Your task to perform on an android device: toggle location history Image 0: 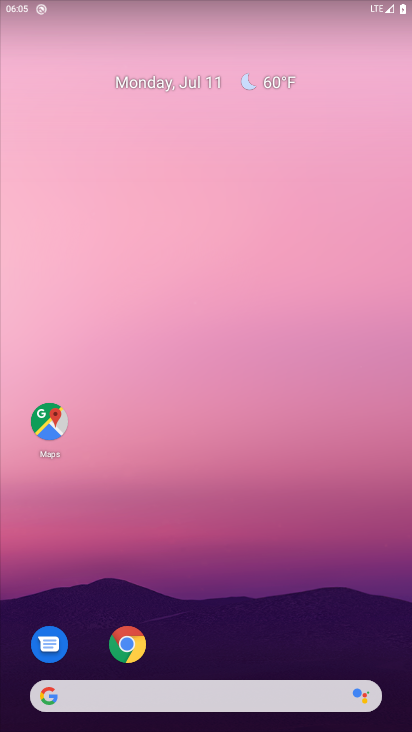
Step 0: drag from (203, 698) to (169, 343)
Your task to perform on an android device: toggle location history Image 1: 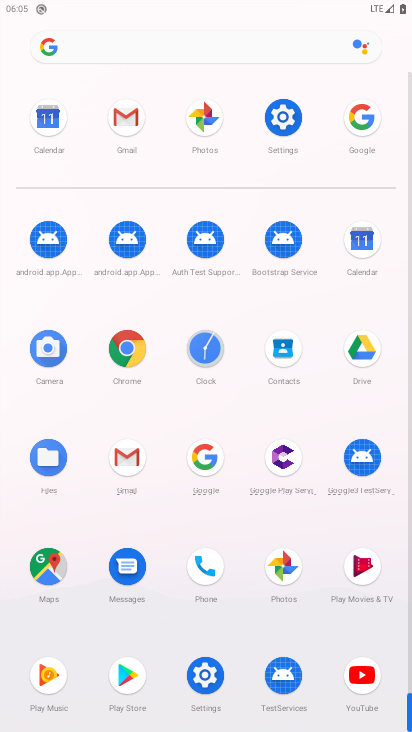
Step 1: click (275, 116)
Your task to perform on an android device: toggle location history Image 2: 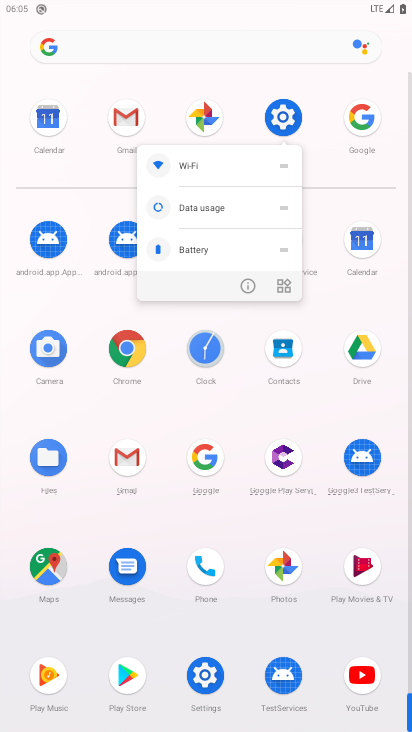
Step 2: click (278, 126)
Your task to perform on an android device: toggle location history Image 3: 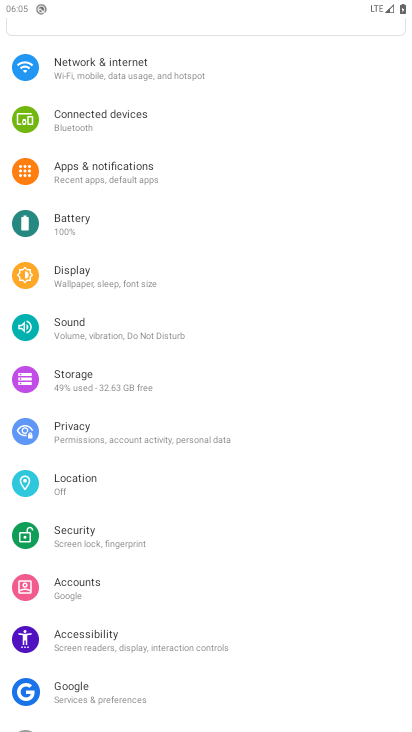
Step 3: click (71, 484)
Your task to perform on an android device: toggle location history Image 4: 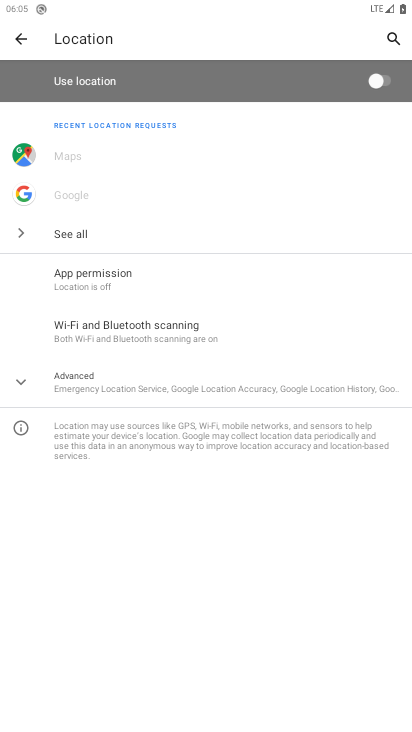
Step 4: click (63, 377)
Your task to perform on an android device: toggle location history Image 5: 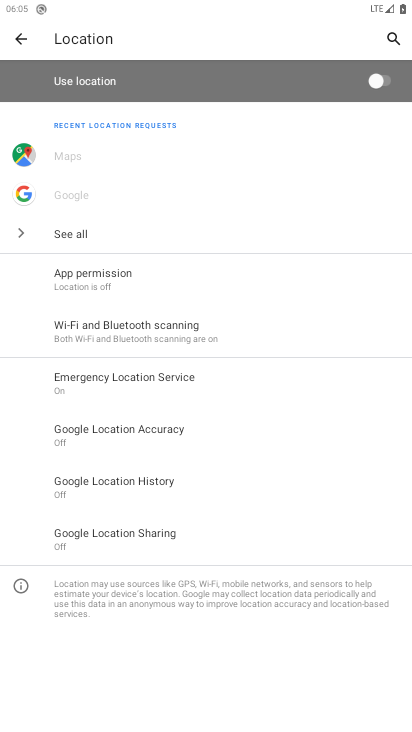
Step 5: click (108, 470)
Your task to perform on an android device: toggle location history Image 6: 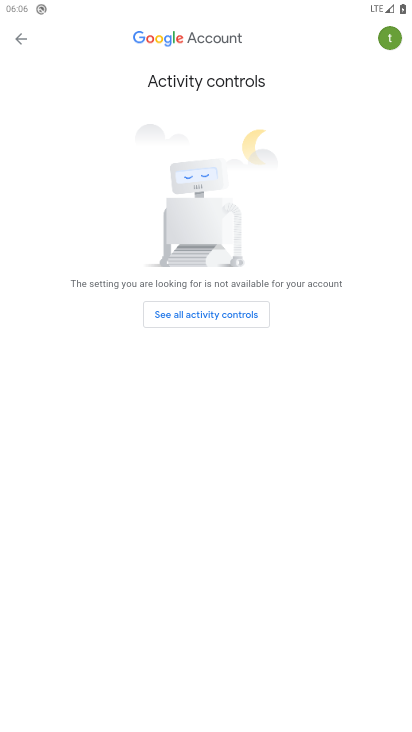
Step 6: click (244, 315)
Your task to perform on an android device: toggle location history Image 7: 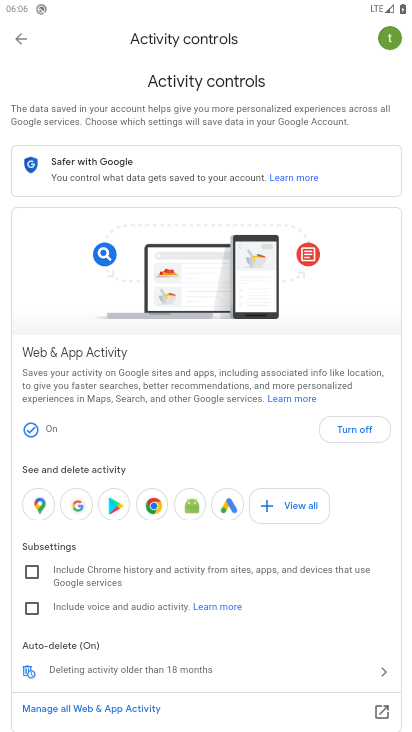
Step 7: click (342, 427)
Your task to perform on an android device: toggle location history Image 8: 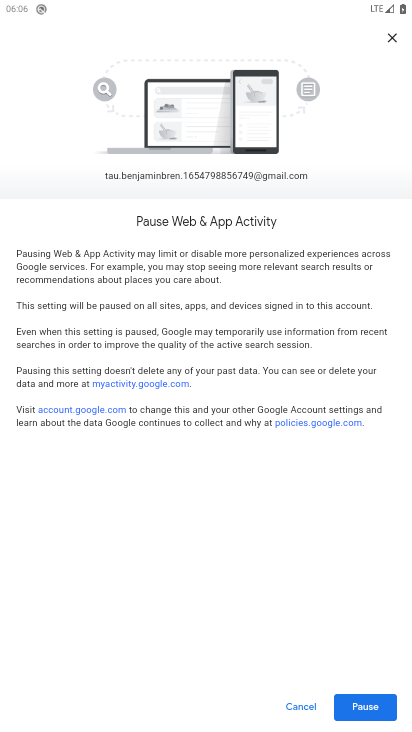
Step 8: click (363, 707)
Your task to perform on an android device: toggle location history Image 9: 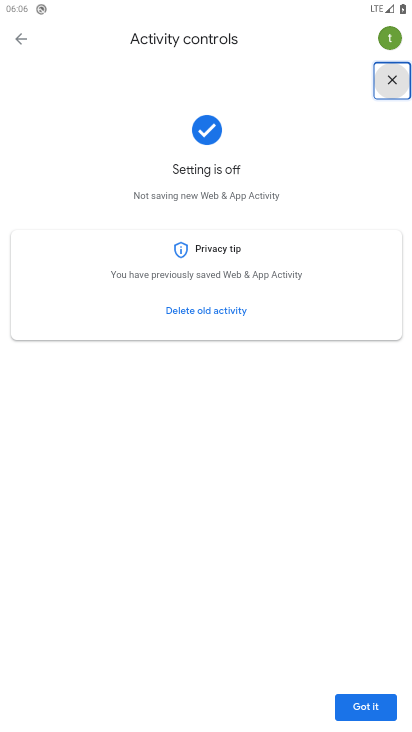
Step 9: click (356, 706)
Your task to perform on an android device: toggle location history Image 10: 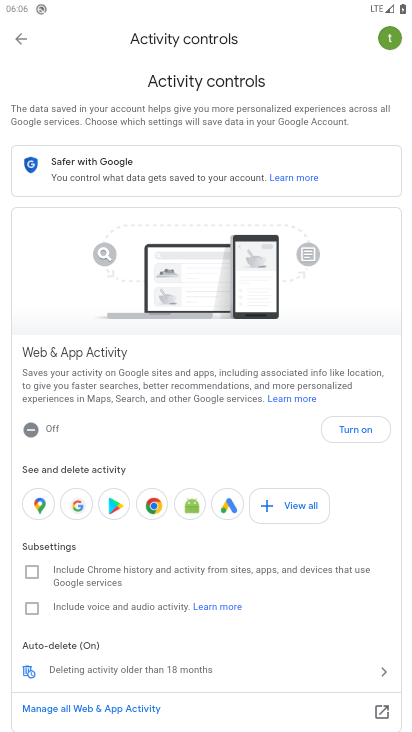
Step 10: task complete